Your task to perform on an android device: turn off wifi Image 0: 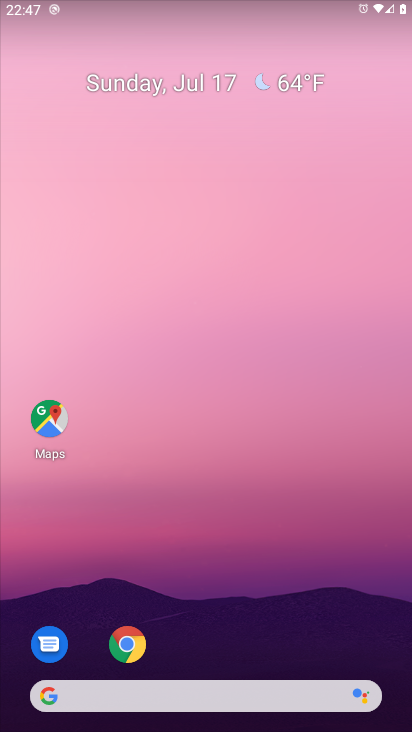
Step 0: press home button
Your task to perform on an android device: turn off wifi Image 1: 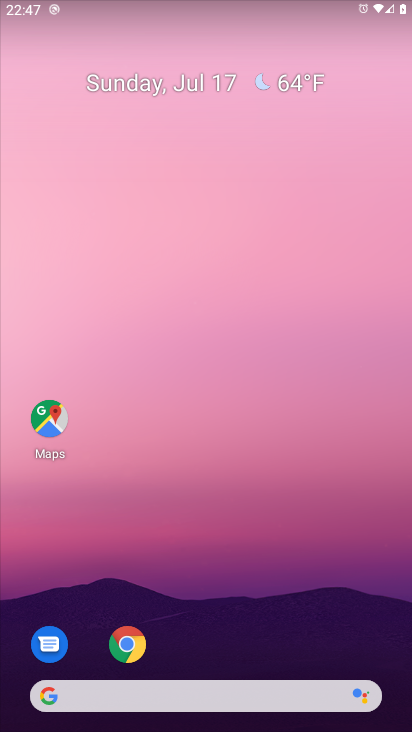
Step 1: drag from (252, 596) to (193, 14)
Your task to perform on an android device: turn off wifi Image 2: 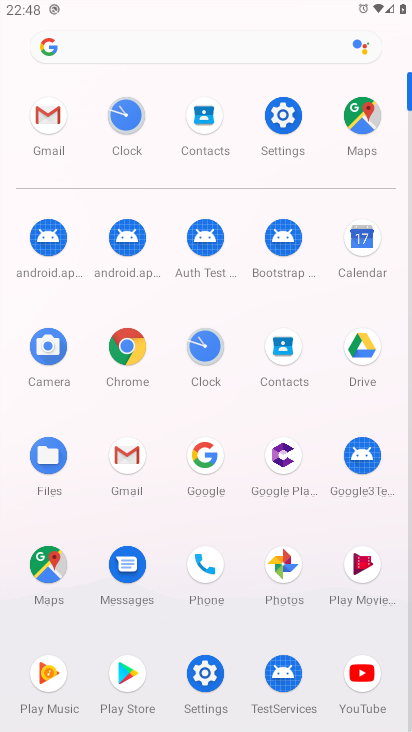
Step 2: click (285, 108)
Your task to perform on an android device: turn off wifi Image 3: 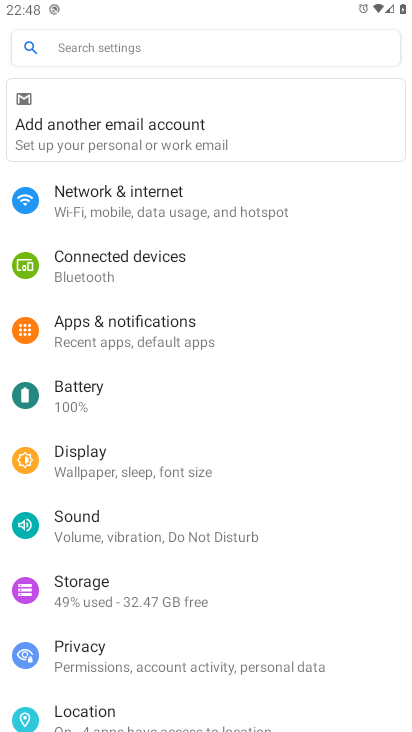
Step 3: click (124, 205)
Your task to perform on an android device: turn off wifi Image 4: 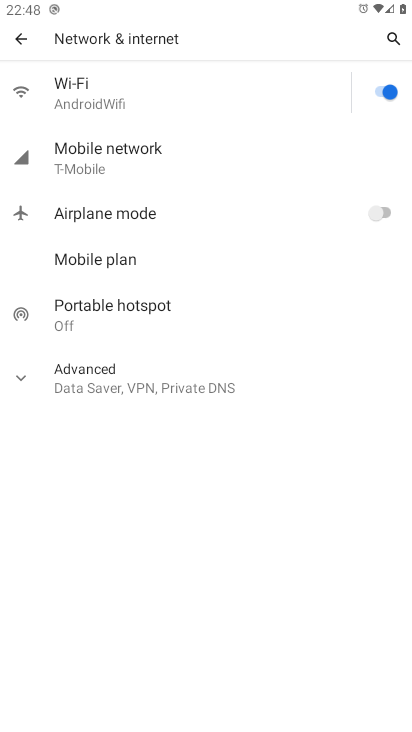
Step 4: click (386, 93)
Your task to perform on an android device: turn off wifi Image 5: 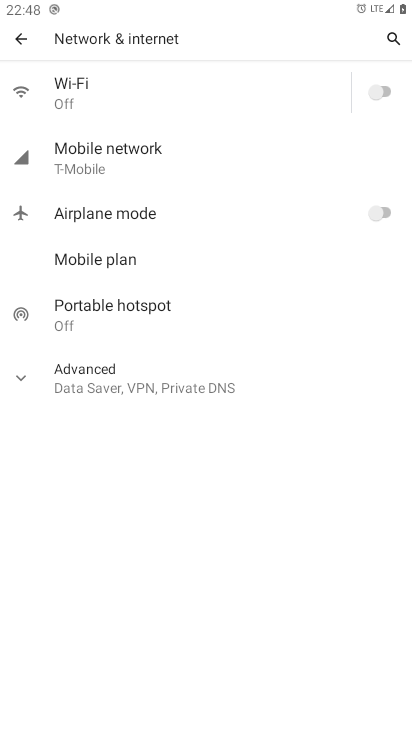
Step 5: task complete